Your task to perform on an android device: Go to Yahoo.com Image 0: 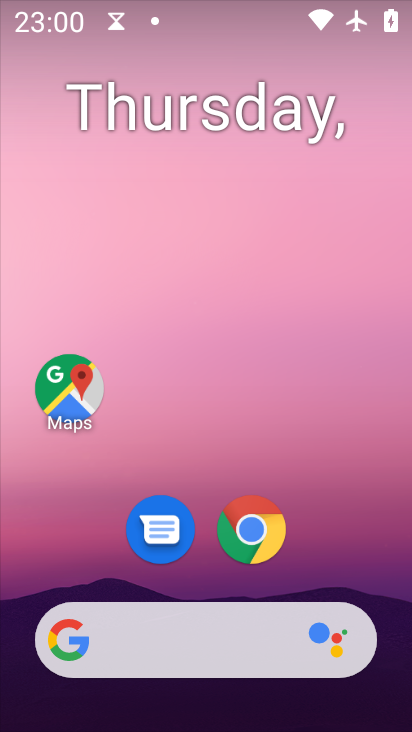
Step 0: click (243, 527)
Your task to perform on an android device: Go to Yahoo.com Image 1: 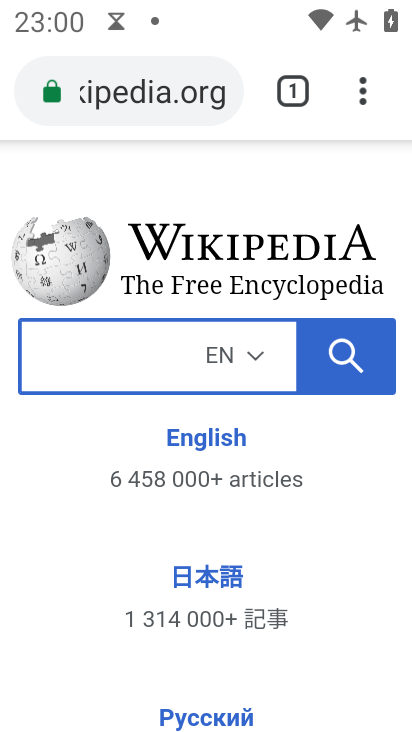
Step 1: click (153, 94)
Your task to perform on an android device: Go to Yahoo.com Image 2: 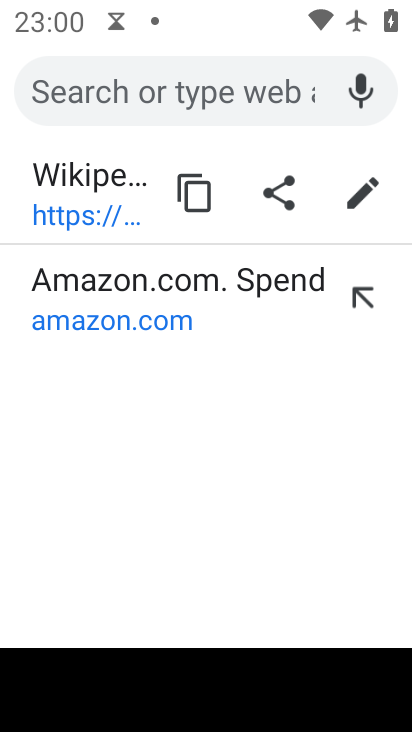
Step 2: type "yahoo.com"
Your task to perform on an android device: Go to Yahoo.com Image 3: 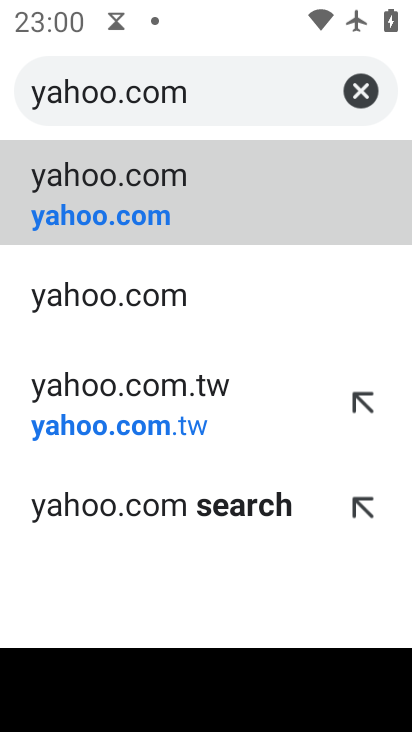
Step 3: click (126, 206)
Your task to perform on an android device: Go to Yahoo.com Image 4: 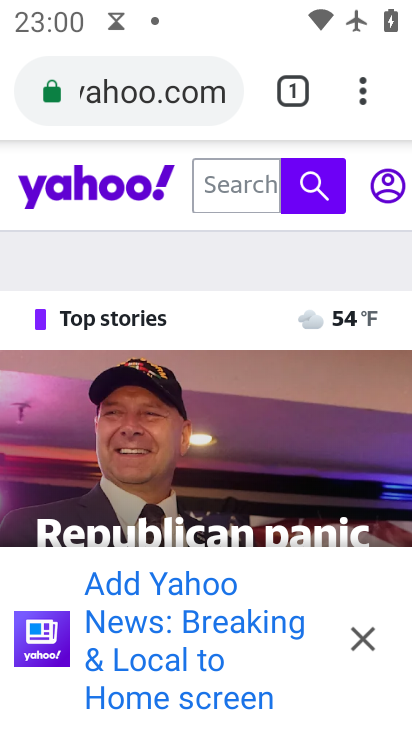
Step 4: task complete